Your task to perform on an android device: Set the phone to "Do not disturb". Image 0: 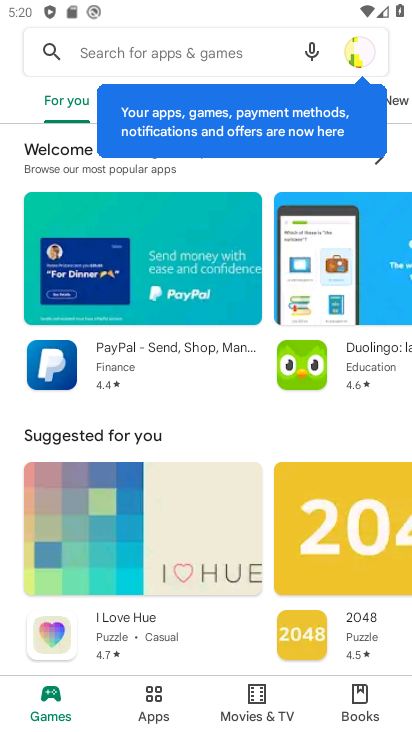
Step 0: press home button
Your task to perform on an android device: Set the phone to "Do not disturb". Image 1: 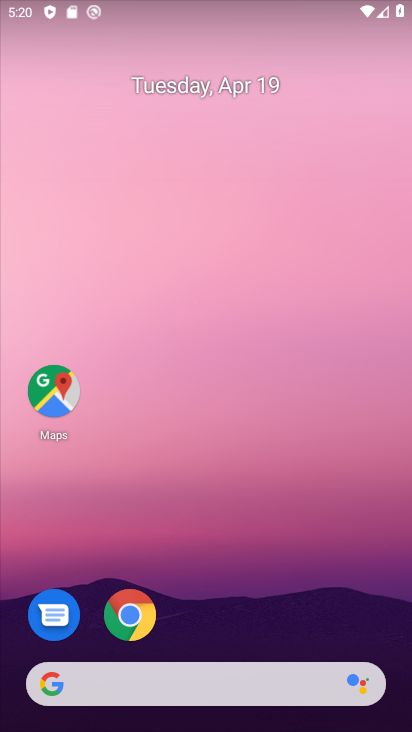
Step 1: drag from (199, 720) to (194, 5)
Your task to perform on an android device: Set the phone to "Do not disturb". Image 2: 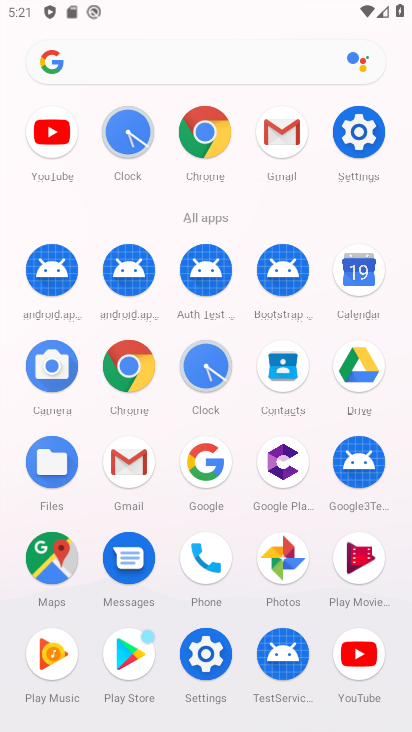
Step 2: click (207, 650)
Your task to perform on an android device: Set the phone to "Do not disturb". Image 3: 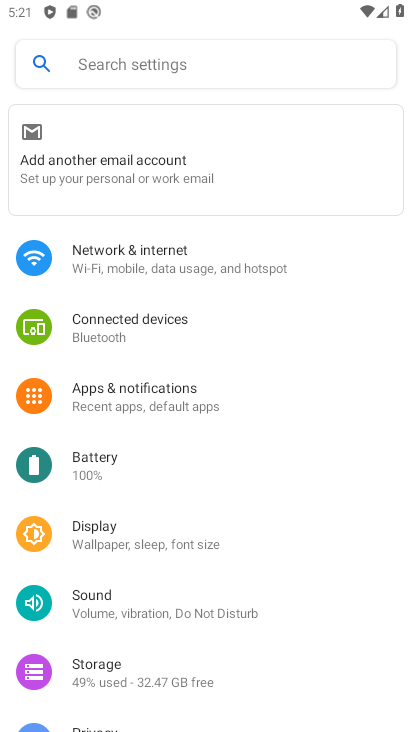
Step 3: click (195, 612)
Your task to perform on an android device: Set the phone to "Do not disturb". Image 4: 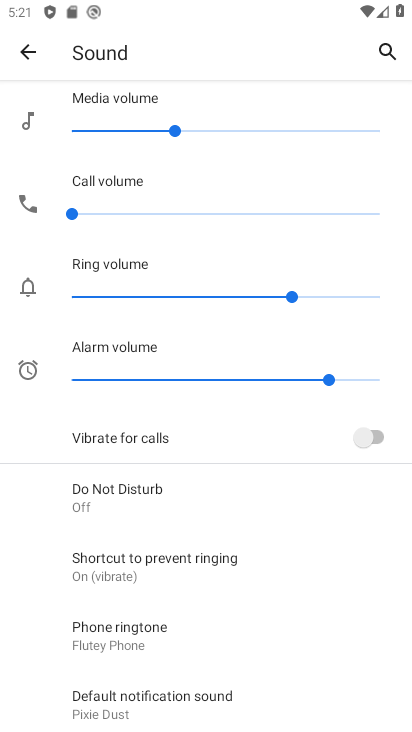
Step 4: drag from (223, 670) to (241, 133)
Your task to perform on an android device: Set the phone to "Do not disturb". Image 5: 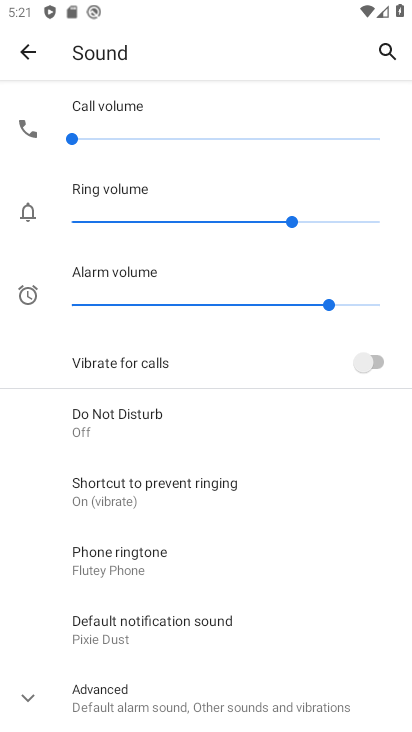
Step 5: click (114, 416)
Your task to perform on an android device: Set the phone to "Do not disturb". Image 6: 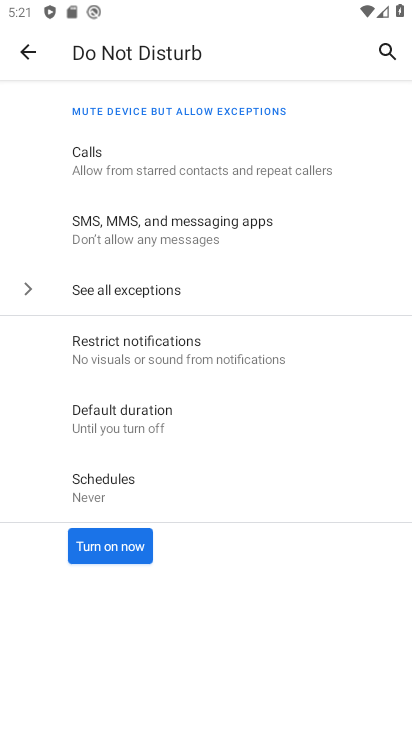
Step 6: click (111, 545)
Your task to perform on an android device: Set the phone to "Do not disturb". Image 7: 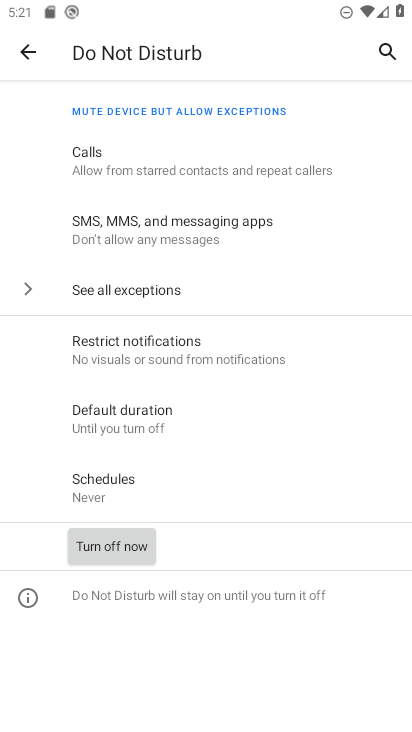
Step 7: task complete